Your task to perform on an android device: install app "Reddit" Image 0: 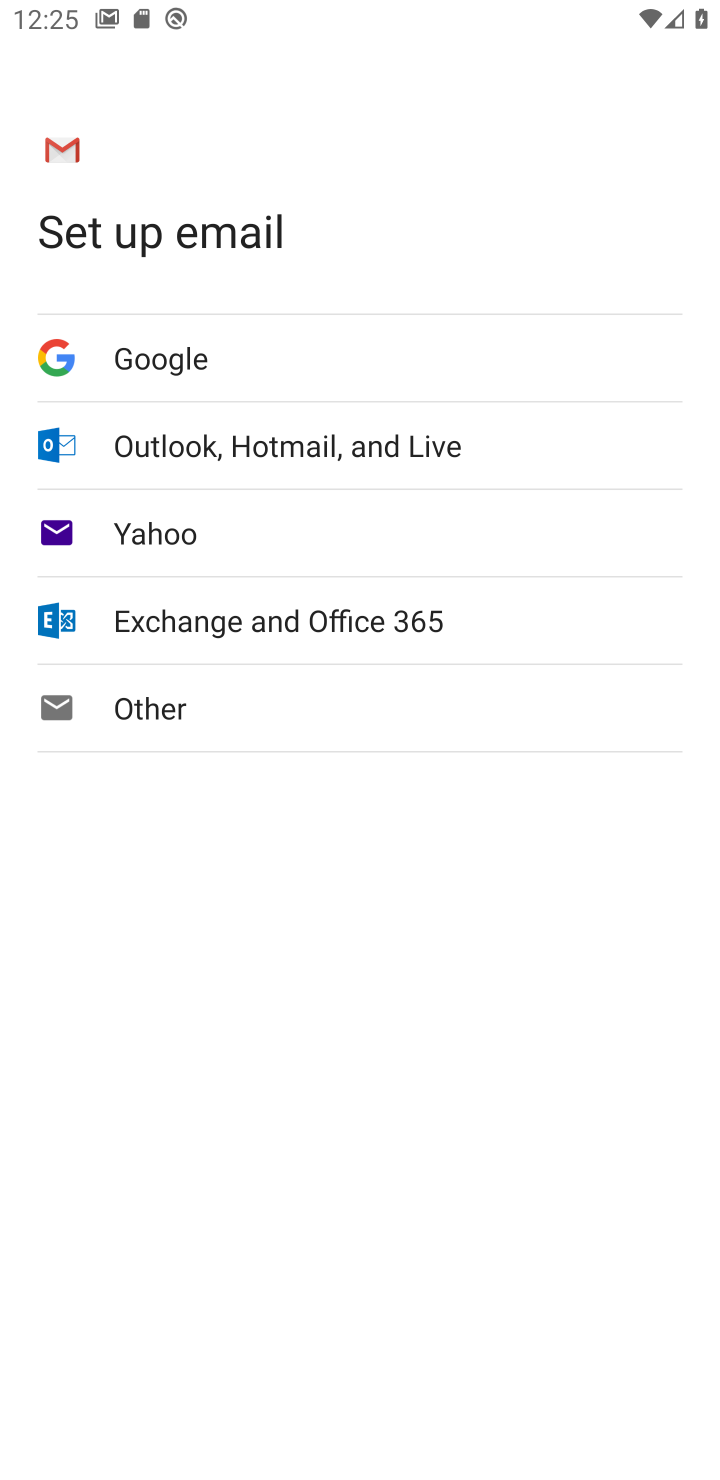
Step 0: press home button
Your task to perform on an android device: install app "Reddit" Image 1: 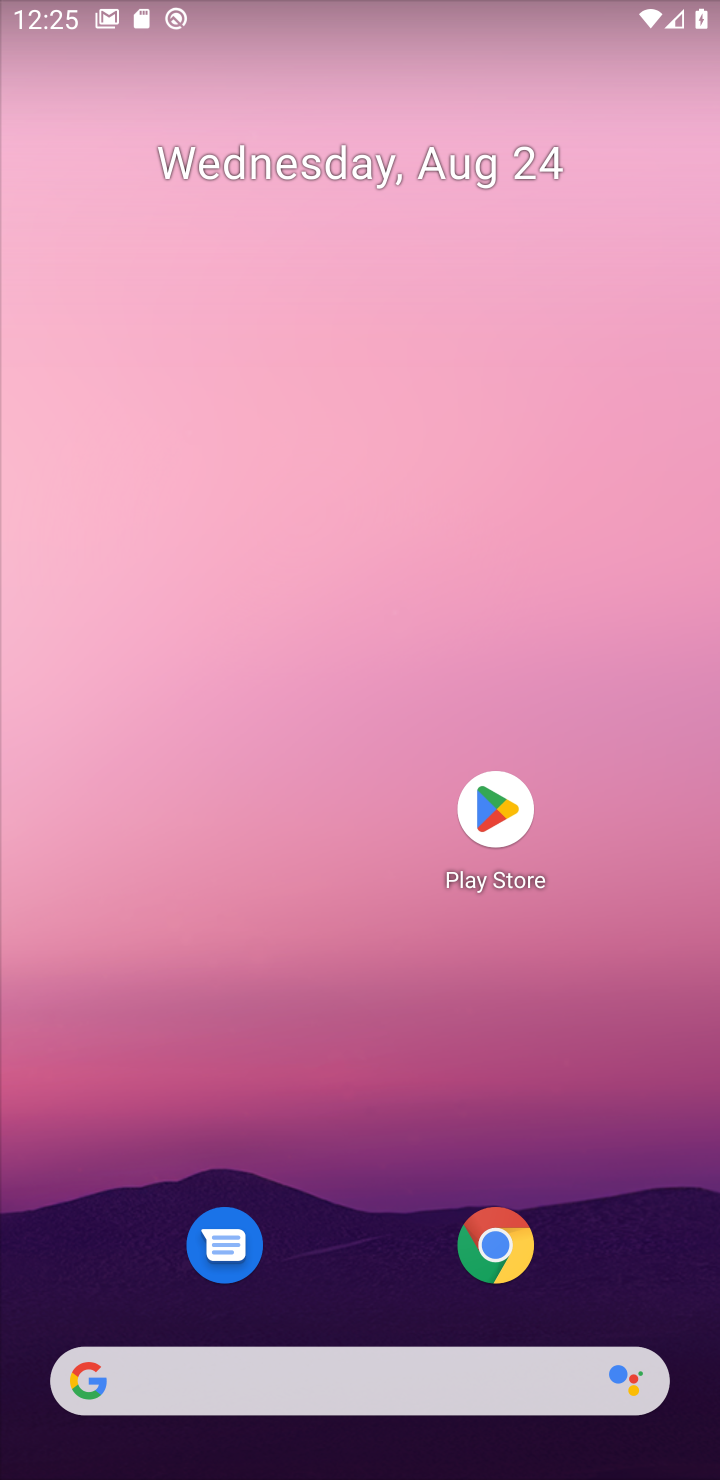
Step 1: click (494, 814)
Your task to perform on an android device: install app "Reddit" Image 2: 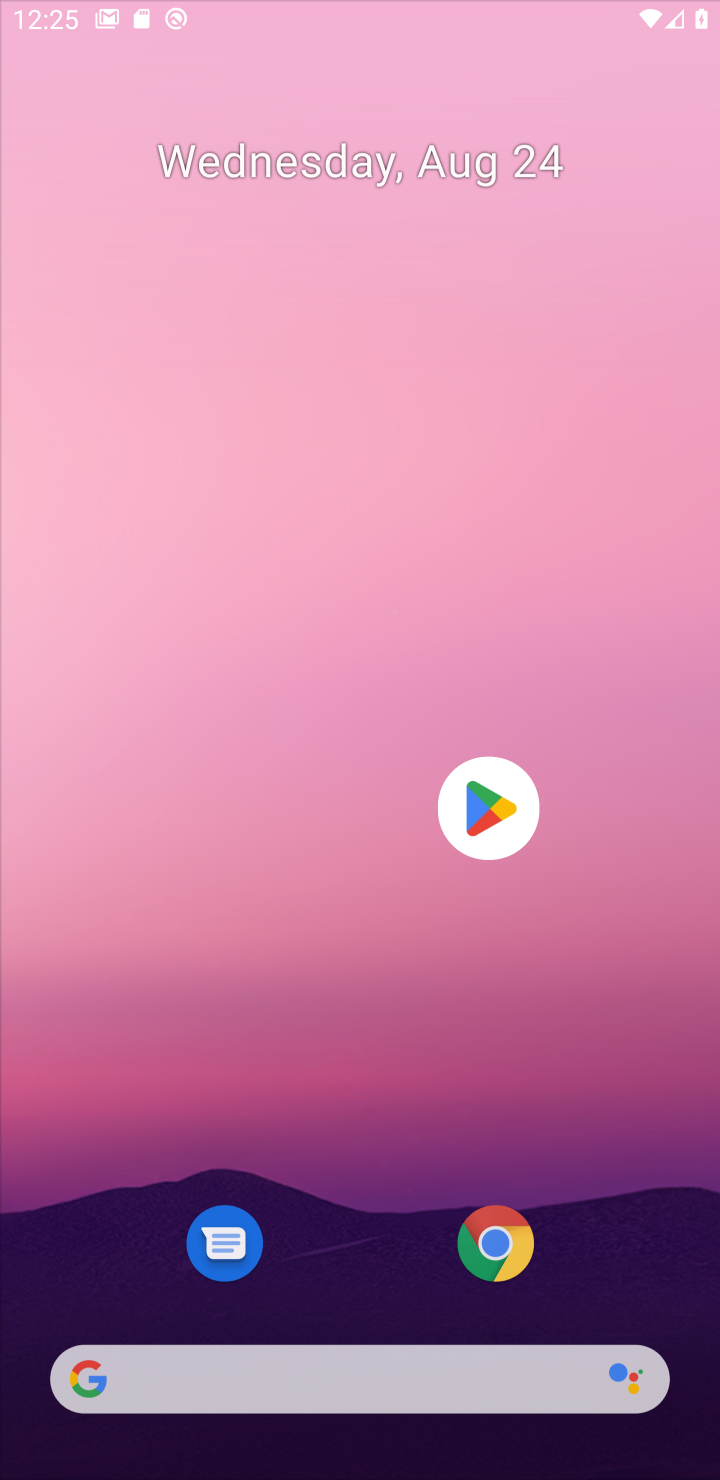
Step 2: click (494, 820)
Your task to perform on an android device: install app "Reddit" Image 3: 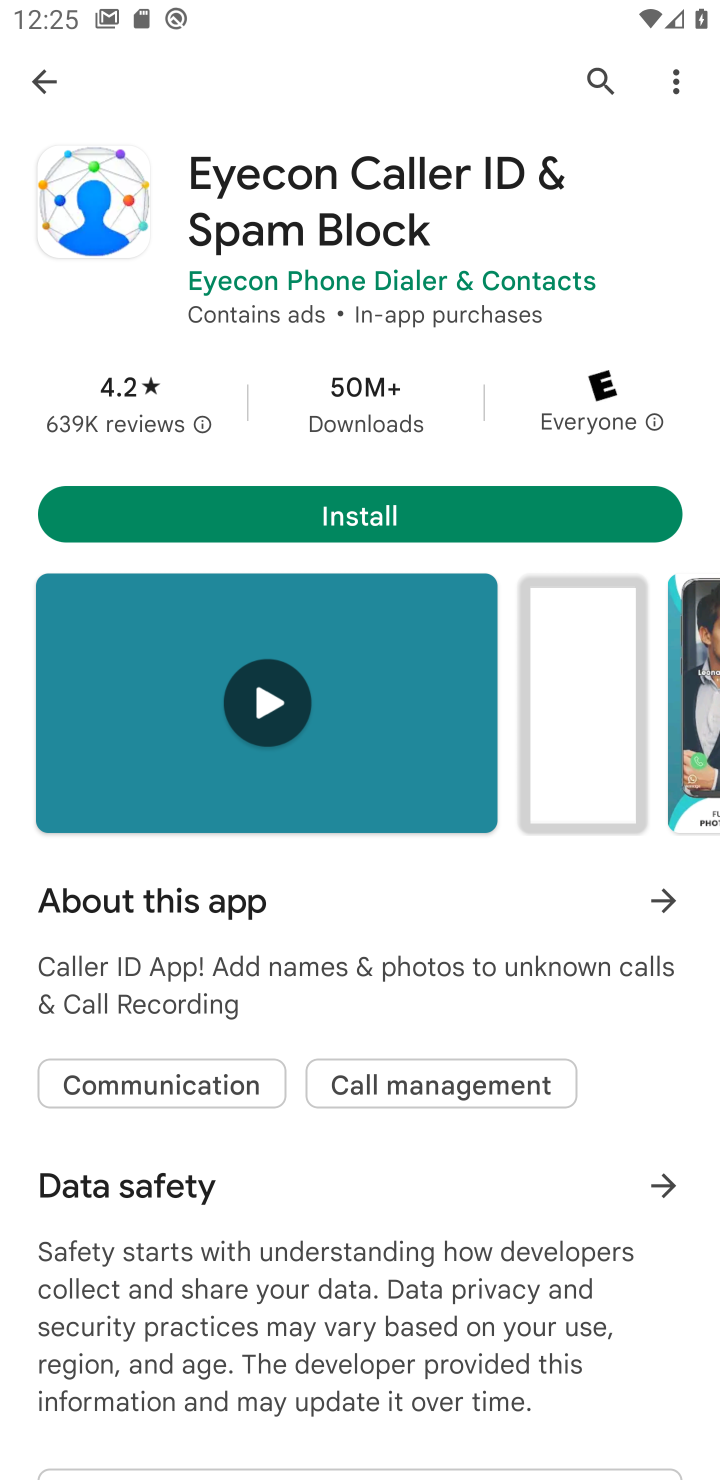
Step 3: click (581, 75)
Your task to perform on an android device: install app "Reddit" Image 4: 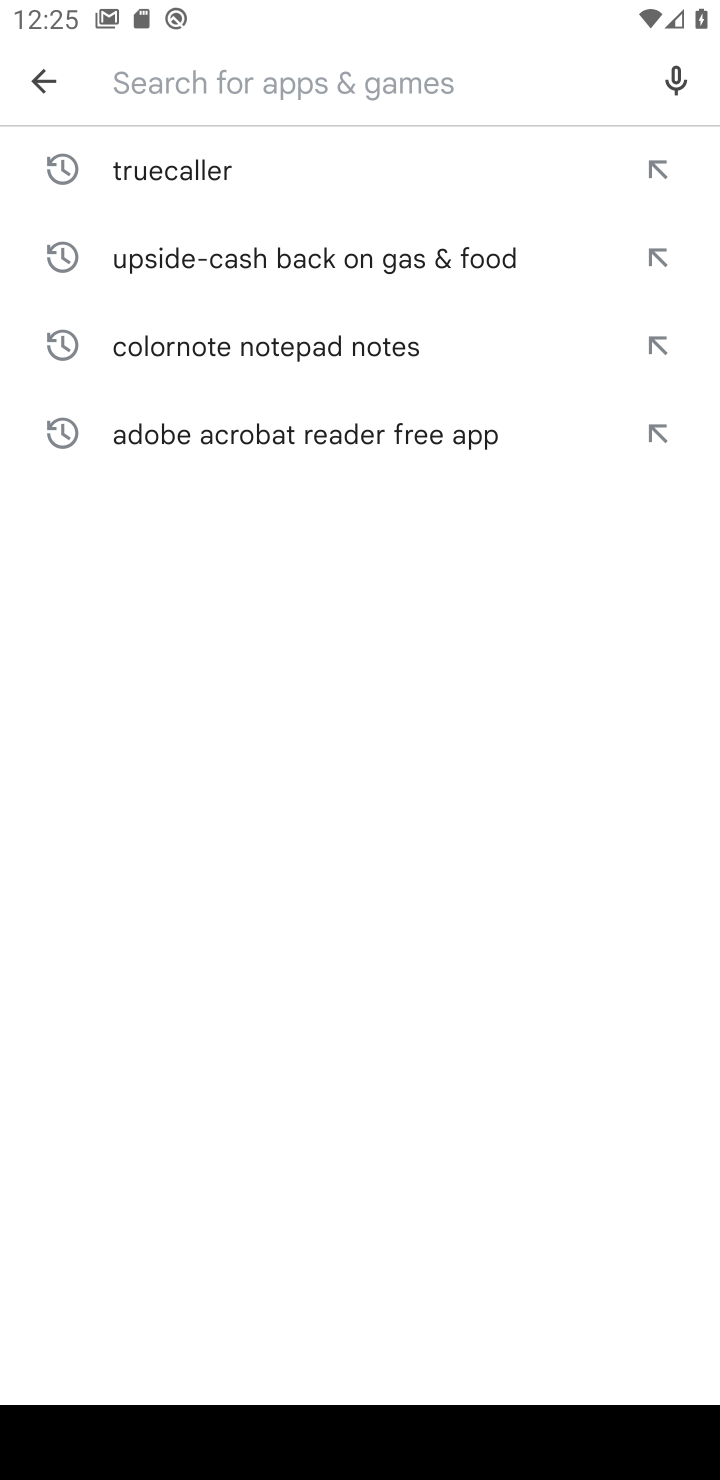
Step 4: type "Reddit"
Your task to perform on an android device: install app "Reddit" Image 5: 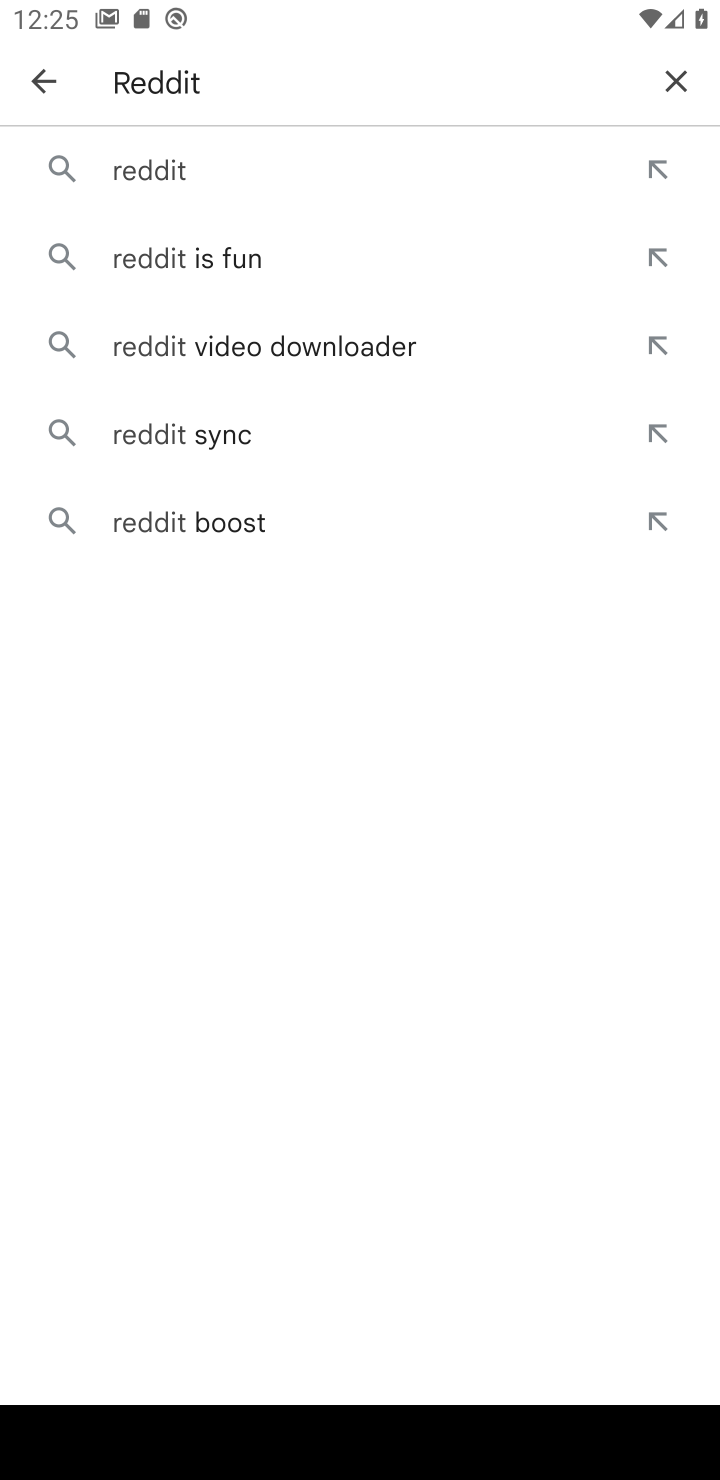
Step 5: click (145, 169)
Your task to perform on an android device: install app "Reddit" Image 6: 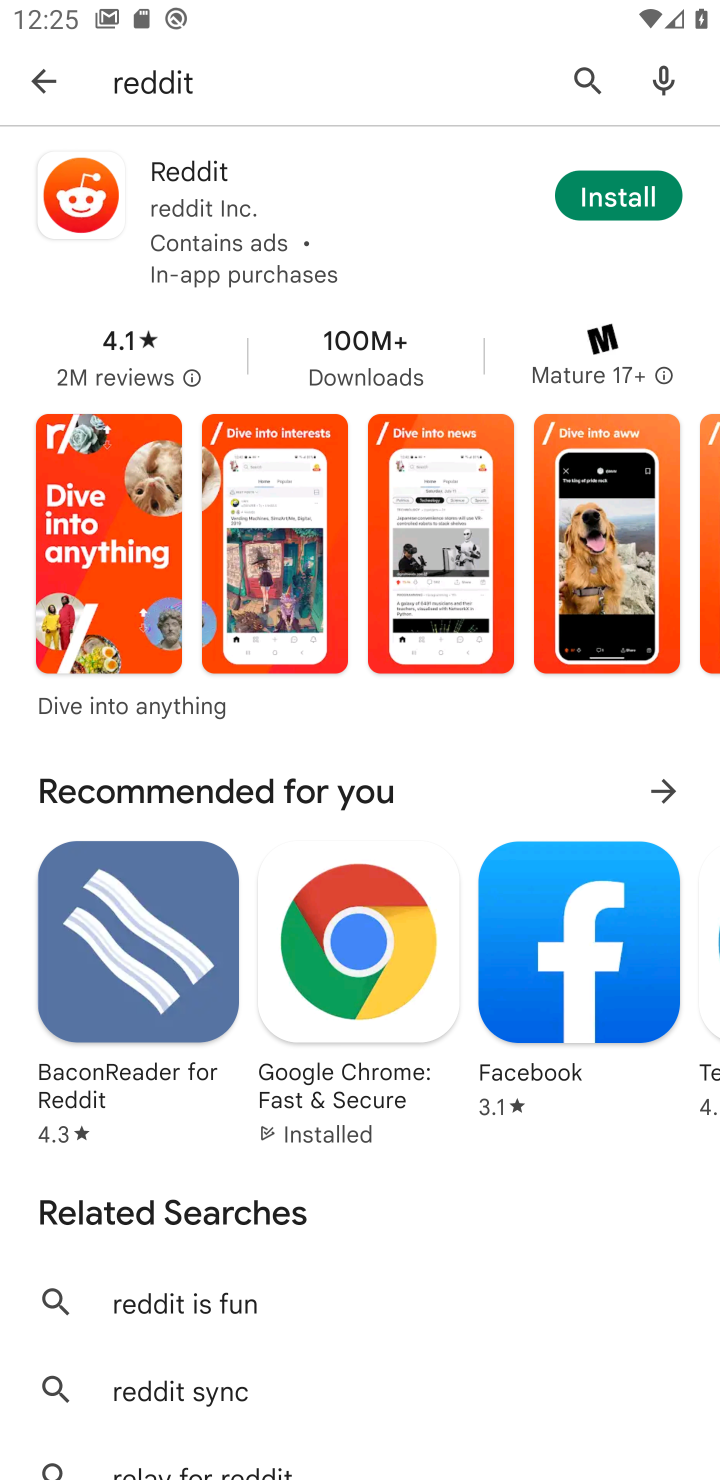
Step 6: click (629, 181)
Your task to perform on an android device: install app "Reddit" Image 7: 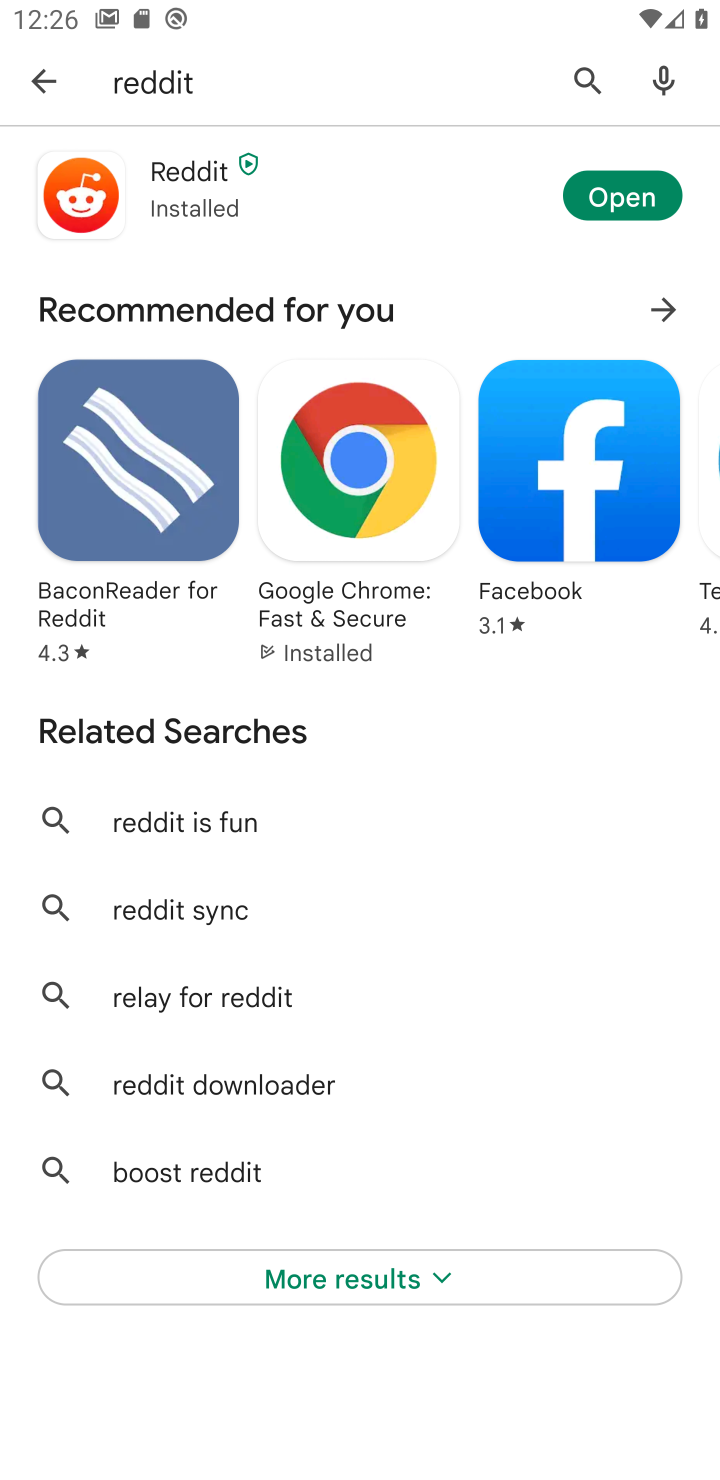
Step 7: task complete